Your task to perform on an android device: What's the weather? Image 0: 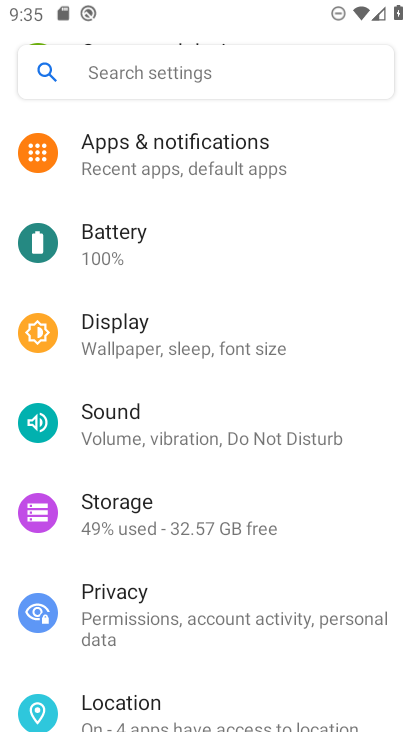
Step 0: press home button
Your task to perform on an android device: What's the weather? Image 1: 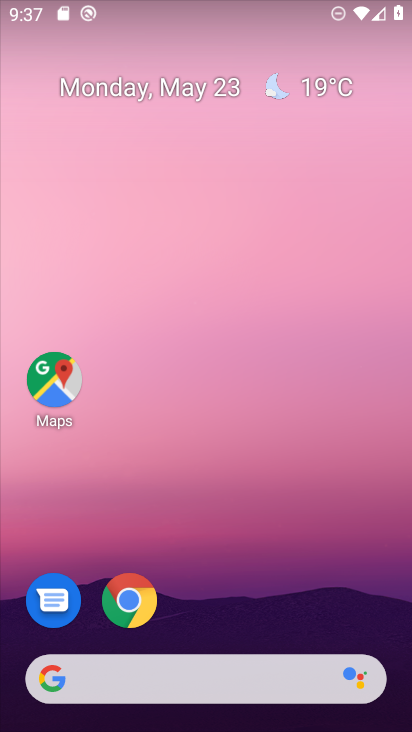
Step 1: click (200, 682)
Your task to perform on an android device: What's the weather? Image 2: 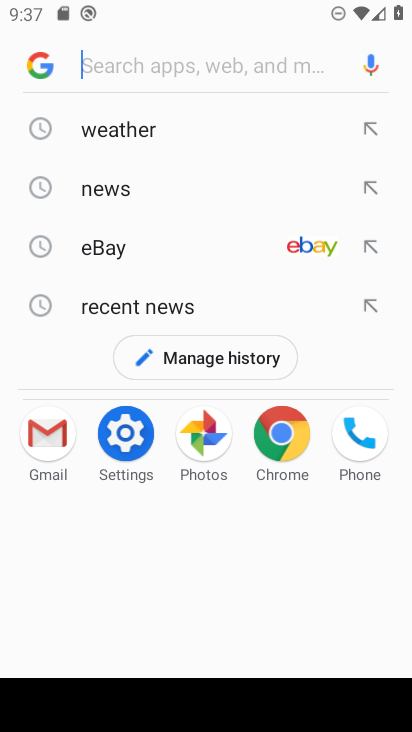
Step 2: click (114, 127)
Your task to perform on an android device: What's the weather? Image 3: 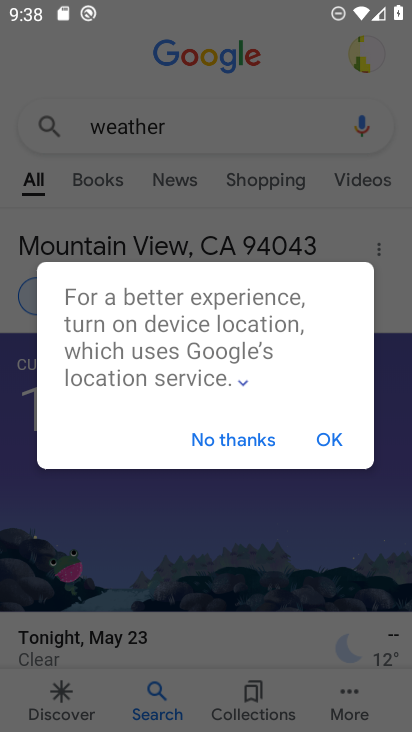
Step 3: task complete